Your task to perform on an android device: Go to ESPN.com Image 0: 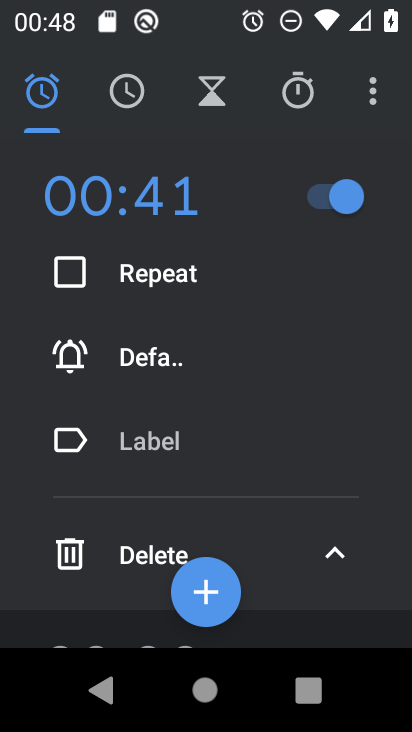
Step 0: press home button
Your task to perform on an android device: Go to ESPN.com Image 1: 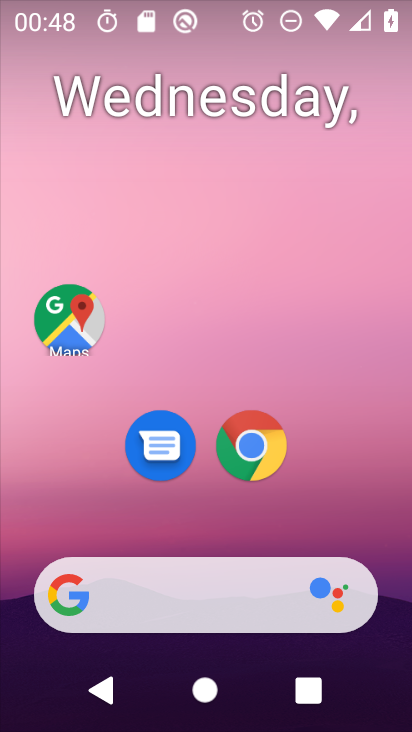
Step 1: click (253, 437)
Your task to perform on an android device: Go to ESPN.com Image 2: 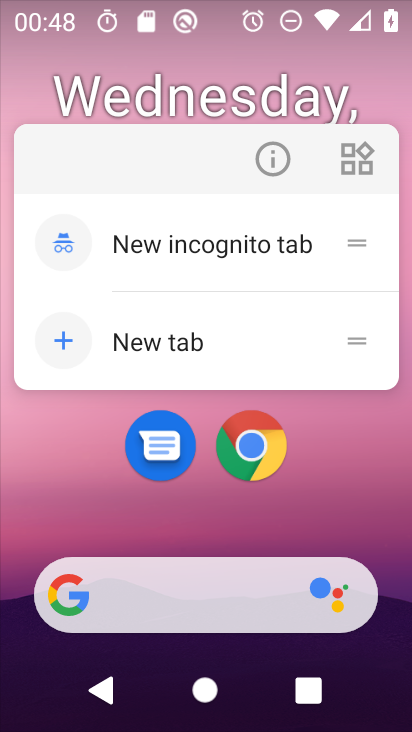
Step 2: click (255, 438)
Your task to perform on an android device: Go to ESPN.com Image 3: 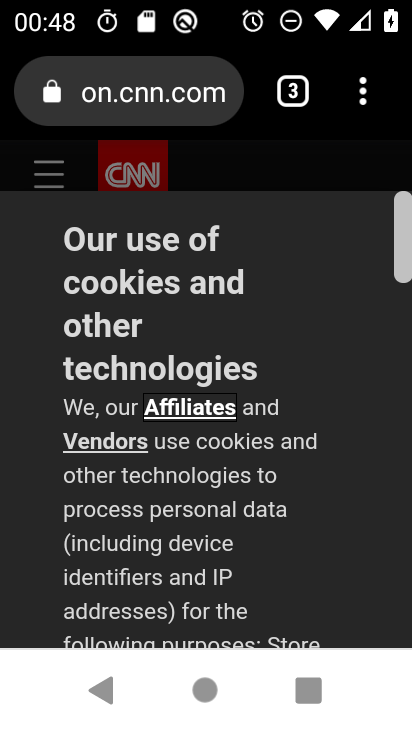
Step 3: click (149, 92)
Your task to perform on an android device: Go to ESPN.com Image 4: 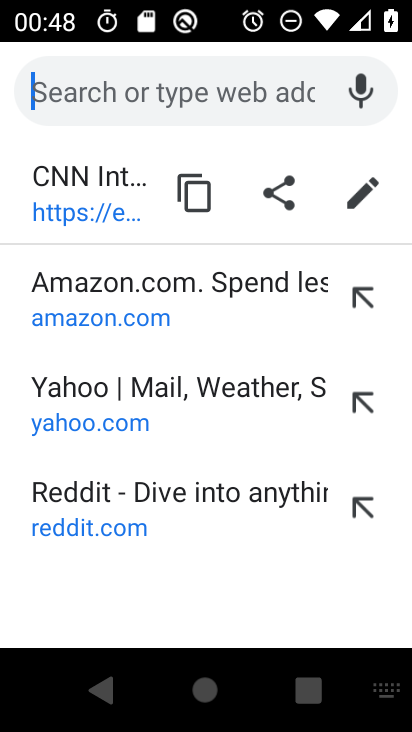
Step 4: type "ESPN.com"
Your task to perform on an android device: Go to ESPN.com Image 5: 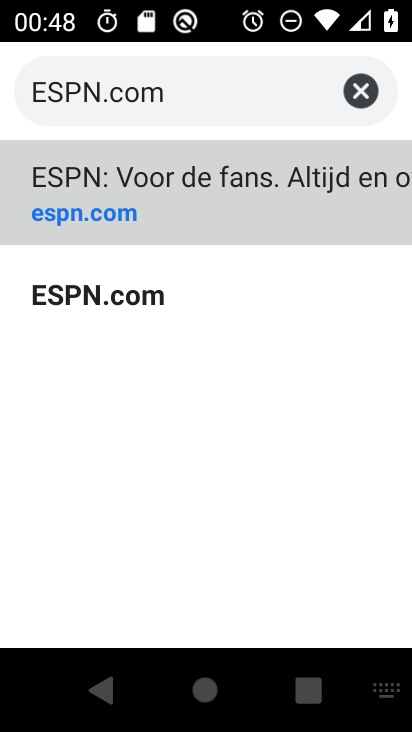
Step 5: click (97, 209)
Your task to perform on an android device: Go to ESPN.com Image 6: 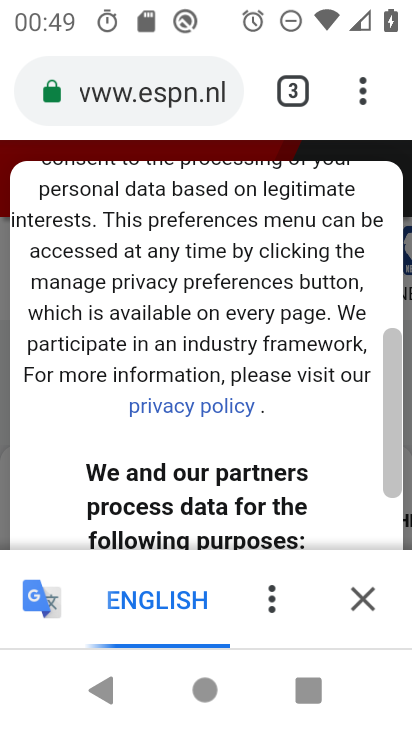
Step 6: task complete